Your task to perform on an android device: Open the stopwatch Image 0: 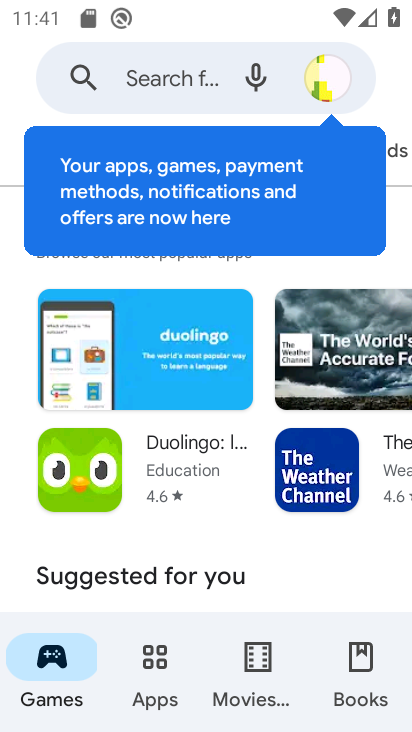
Step 0: press home button
Your task to perform on an android device: Open the stopwatch Image 1: 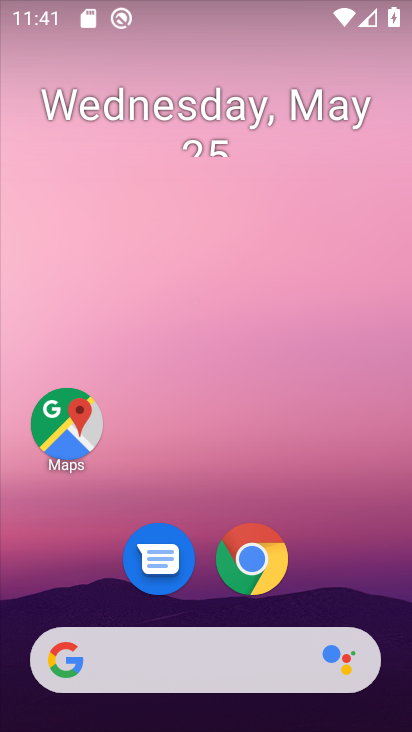
Step 1: drag from (380, 545) to (409, 11)
Your task to perform on an android device: Open the stopwatch Image 2: 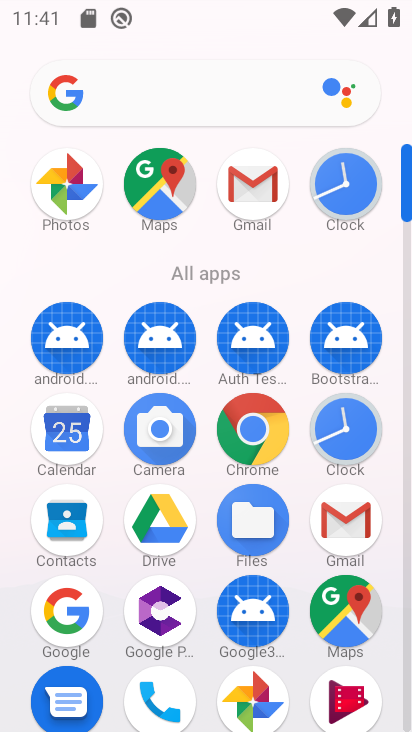
Step 2: click (344, 453)
Your task to perform on an android device: Open the stopwatch Image 3: 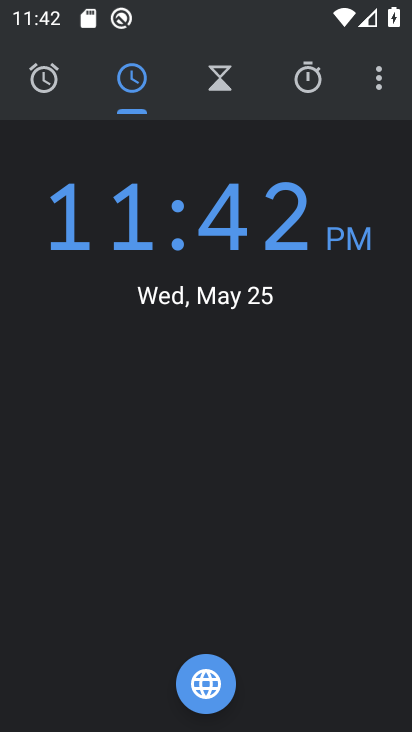
Step 3: click (307, 93)
Your task to perform on an android device: Open the stopwatch Image 4: 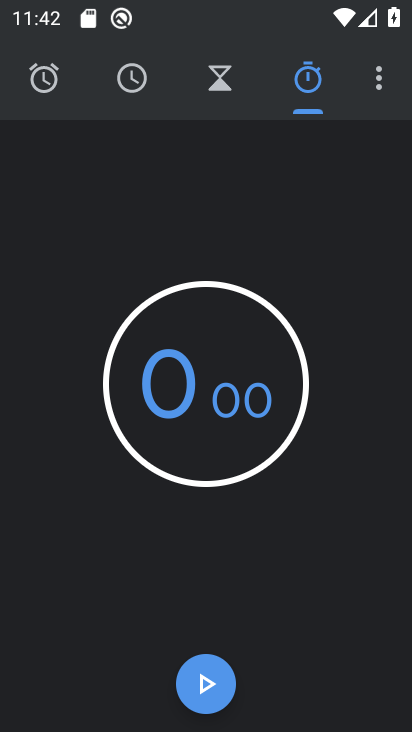
Step 4: click (209, 696)
Your task to perform on an android device: Open the stopwatch Image 5: 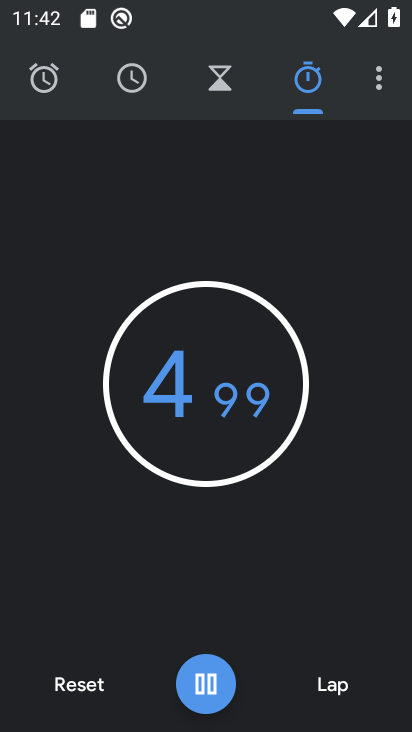
Step 5: click (218, 683)
Your task to perform on an android device: Open the stopwatch Image 6: 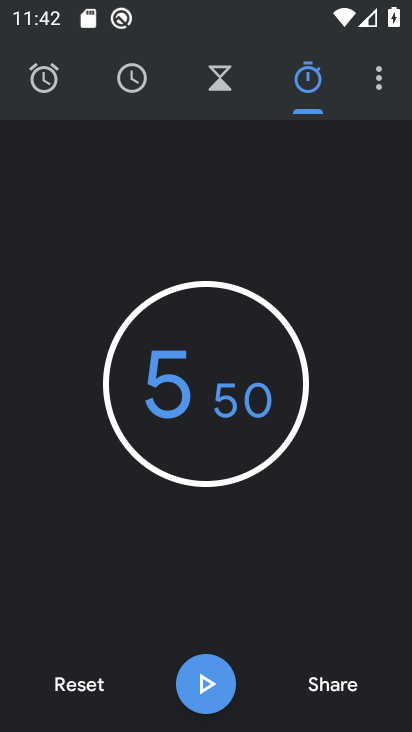
Step 6: task complete